Your task to perform on an android device: turn notification dots off Image 0: 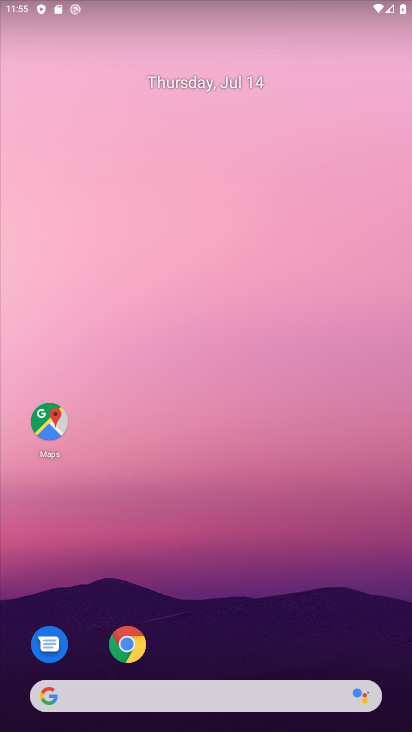
Step 0: drag from (201, 575) to (198, 186)
Your task to perform on an android device: turn notification dots off Image 1: 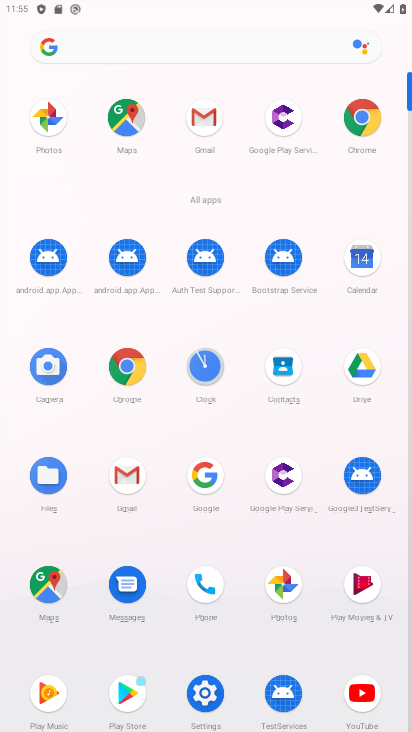
Step 1: click (199, 696)
Your task to perform on an android device: turn notification dots off Image 2: 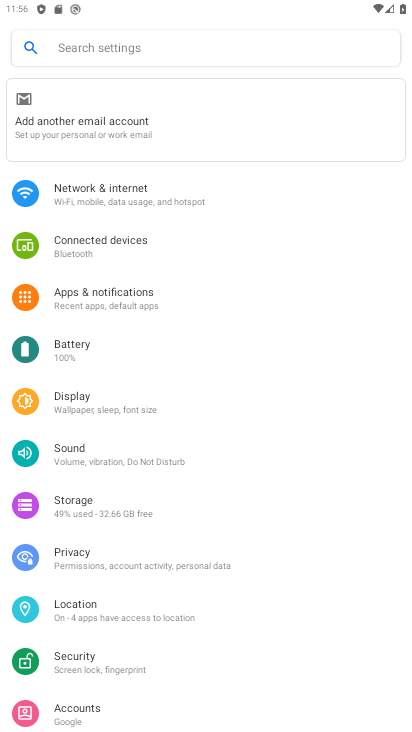
Step 2: click (93, 297)
Your task to perform on an android device: turn notification dots off Image 3: 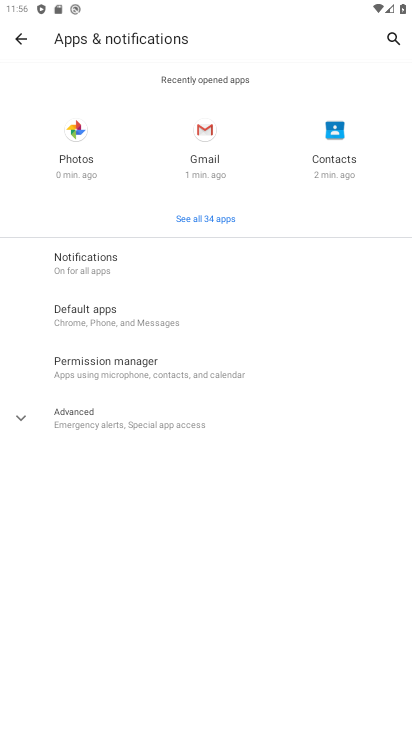
Step 3: click (80, 258)
Your task to perform on an android device: turn notification dots off Image 4: 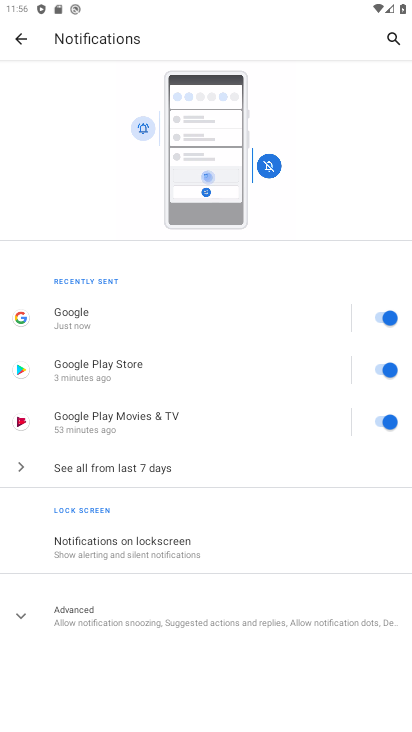
Step 4: click (176, 627)
Your task to perform on an android device: turn notification dots off Image 5: 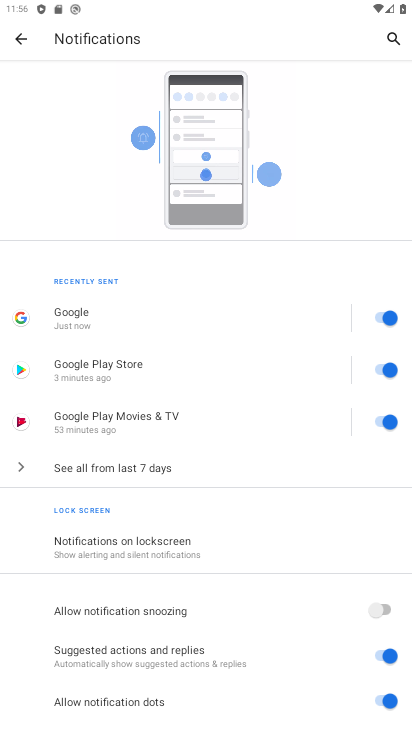
Step 5: click (388, 702)
Your task to perform on an android device: turn notification dots off Image 6: 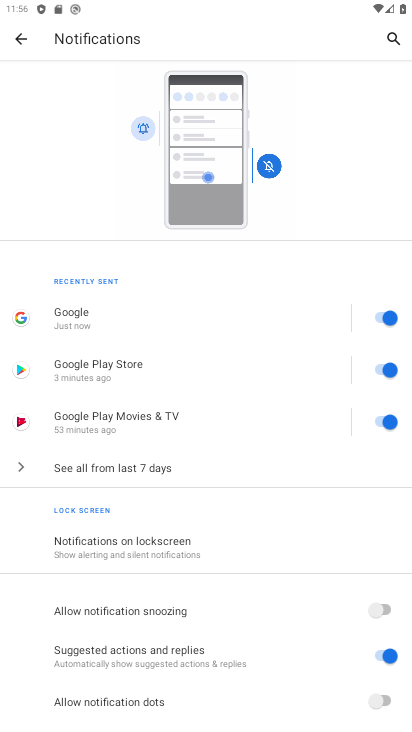
Step 6: task complete